Your task to perform on an android device: set the timer Image 0: 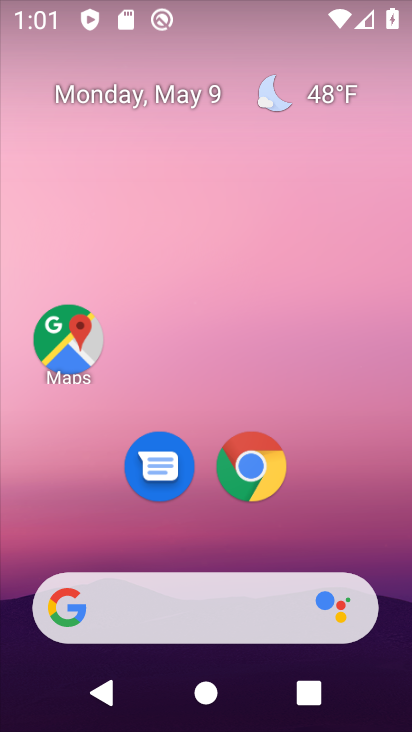
Step 0: drag from (210, 525) to (195, 211)
Your task to perform on an android device: set the timer Image 1: 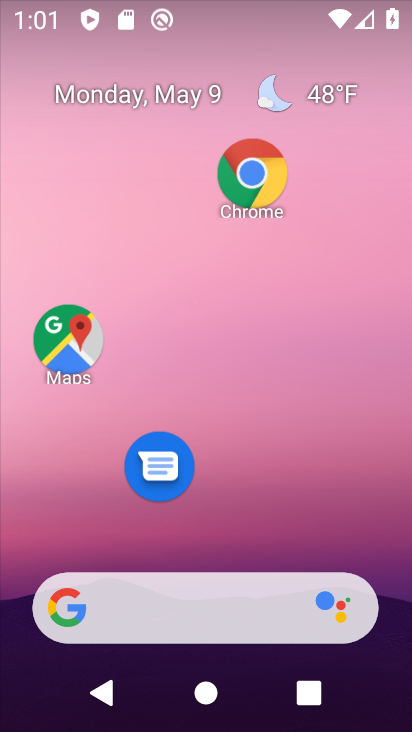
Step 1: drag from (194, 538) to (216, 117)
Your task to perform on an android device: set the timer Image 2: 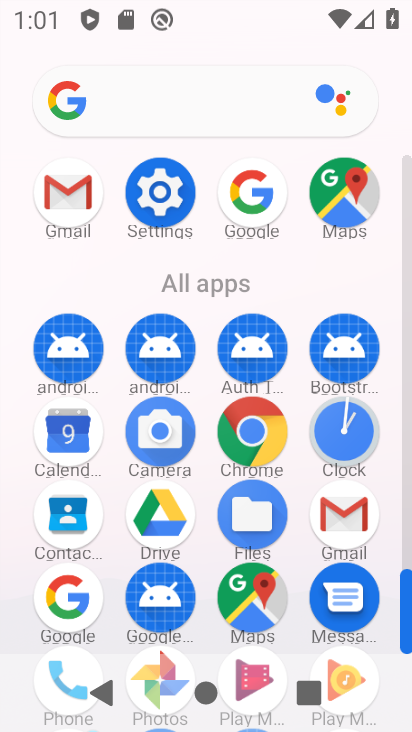
Step 2: click (356, 426)
Your task to perform on an android device: set the timer Image 3: 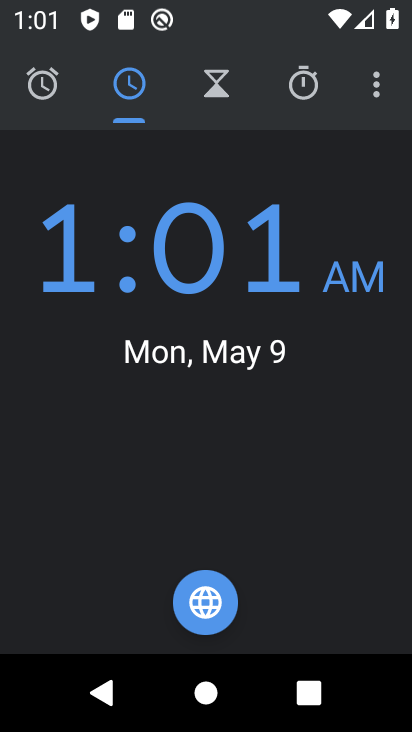
Step 3: click (237, 90)
Your task to perform on an android device: set the timer Image 4: 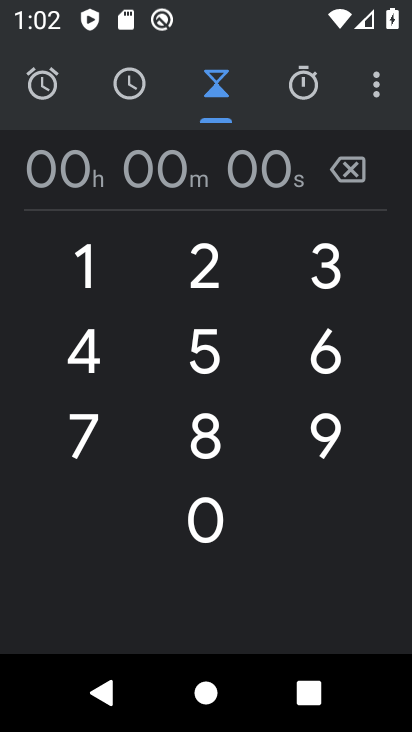
Step 4: click (266, 165)
Your task to perform on an android device: set the timer Image 5: 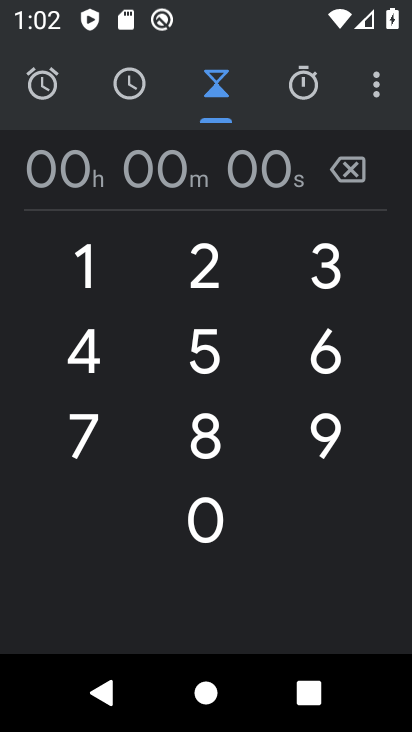
Step 5: type "86"
Your task to perform on an android device: set the timer Image 6: 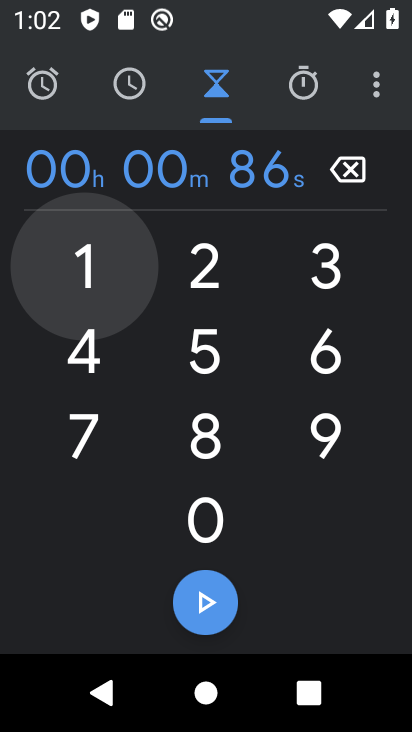
Step 6: click (215, 619)
Your task to perform on an android device: set the timer Image 7: 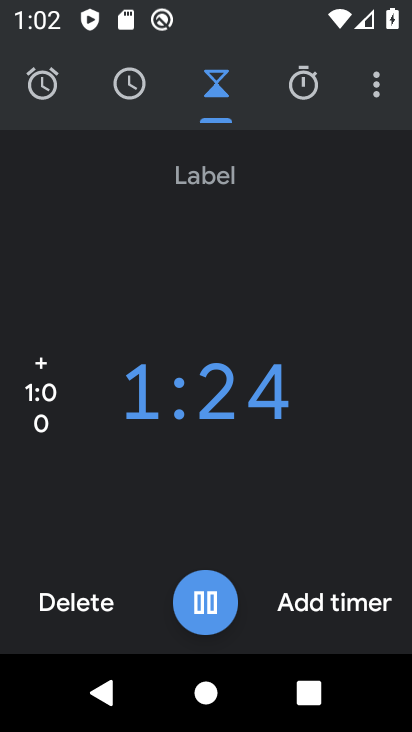
Step 7: task complete